Your task to perform on an android device: Check the news Image 0: 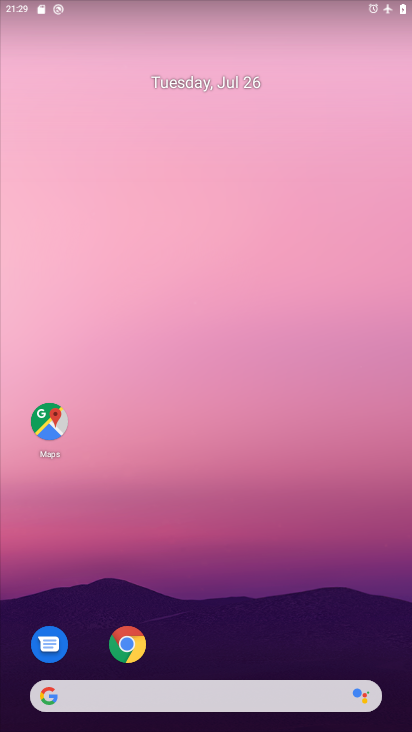
Step 0: click (134, 649)
Your task to perform on an android device: Check the news Image 1: 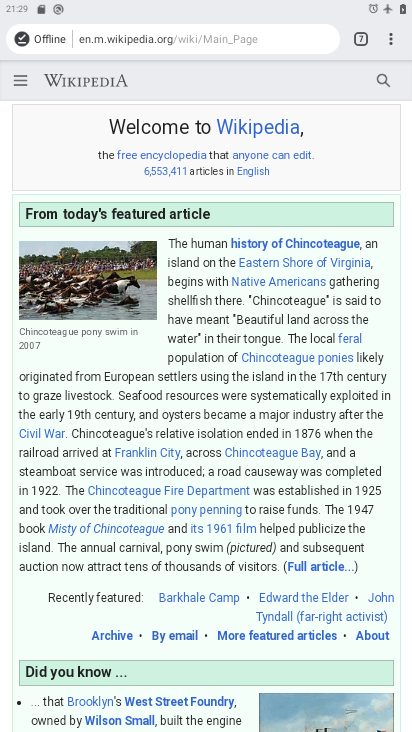
Step 1: click (396, 31)
Your task to perform on an android device: Check the news Image 2: 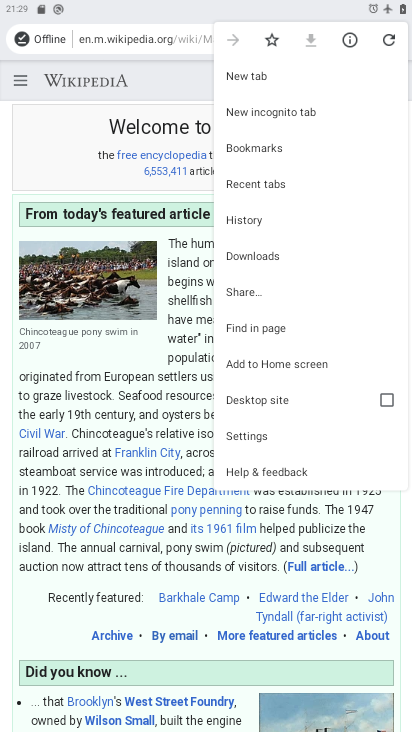
Step 2: click (250, 78)
Your task to perform on an android device: Check the news Image 3: 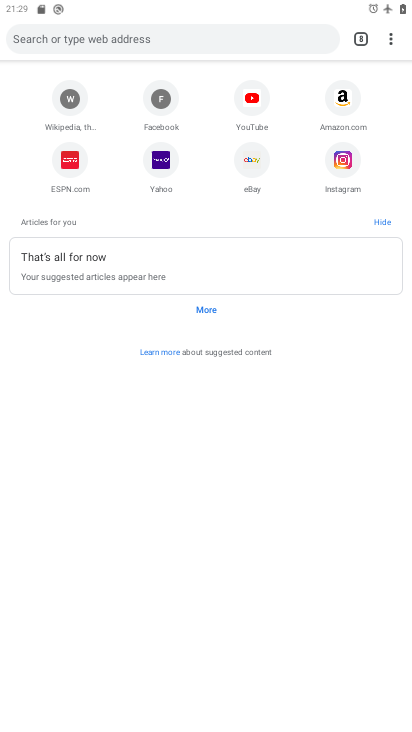
Step 3: click (172, 26)
Your task to perform on an android device: Check the news Image 4: 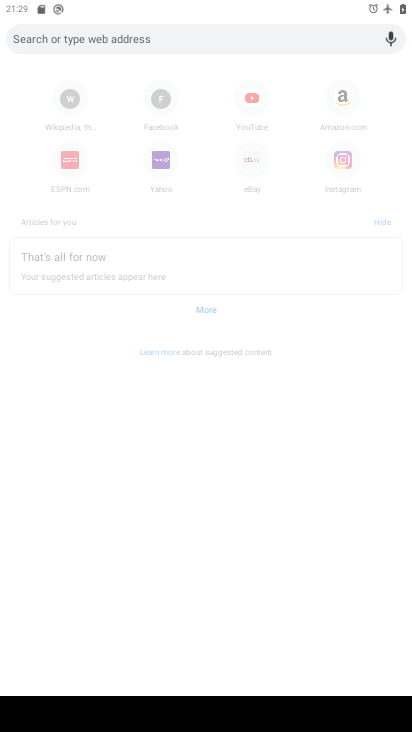
Step 4: type "Check the news "
Your task to perform on an android device: Check the news Image 5: 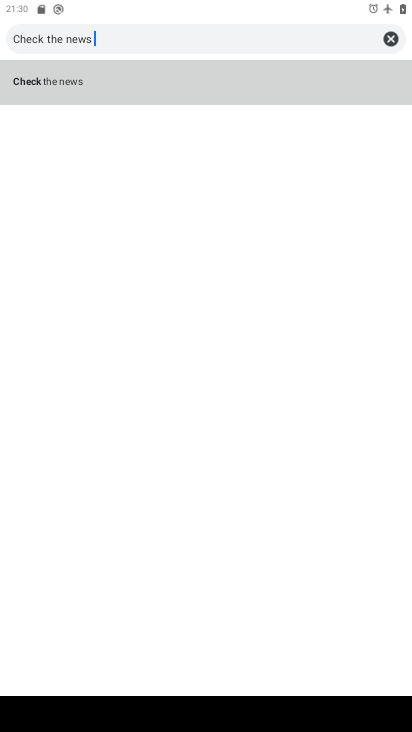
Step 5: click (160, 79)
Your task to perform on an android device: Check the news Image 6: 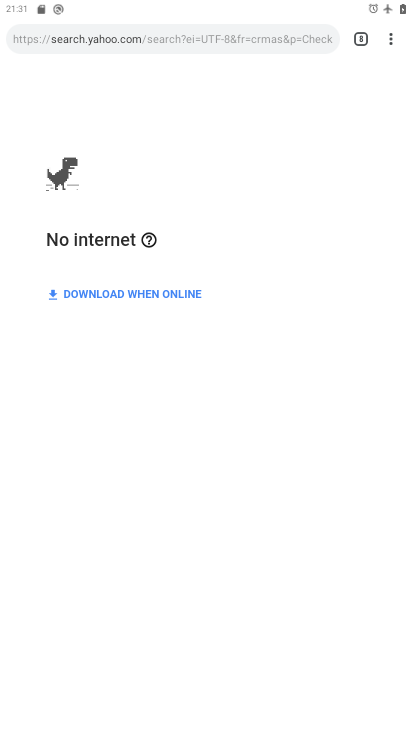
Step 6: task complete